Your task to perform on an android device: Go to battery settings Image 0: 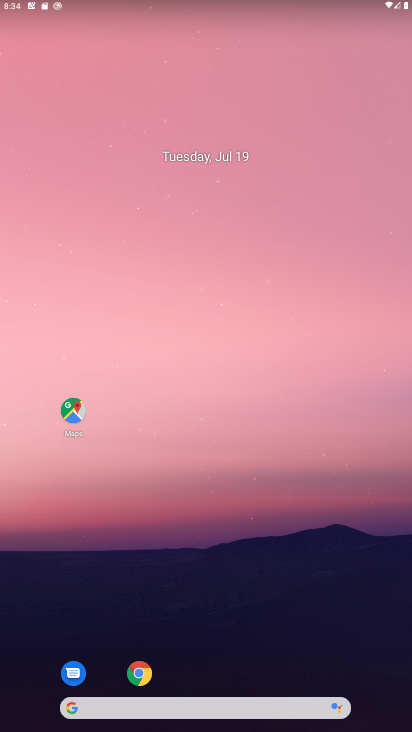
Step 0: drag from (362, 661) to (342, 257)
Your task to perform on an android device: Go to battery settings Image 1: 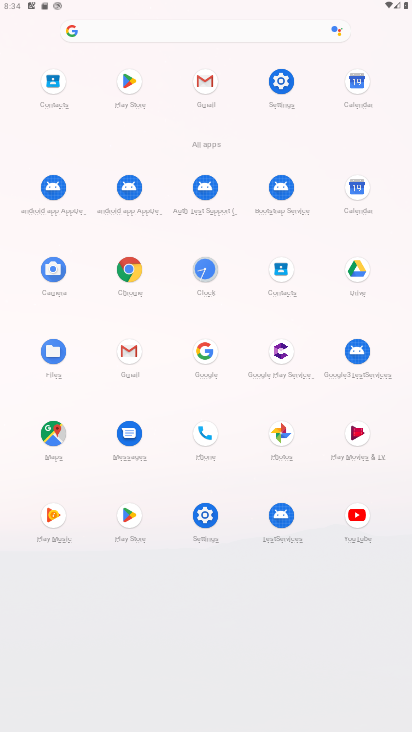
Step 1: click (204, 514)
Your task to perform on an android device: Go to battery settings Image 2: 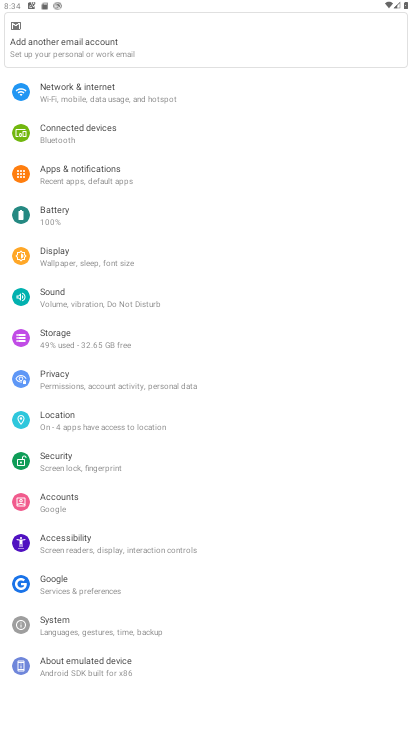
Step 2: click (43, 212)
Your task to perform on an android device: Go to battery settings Image 3: 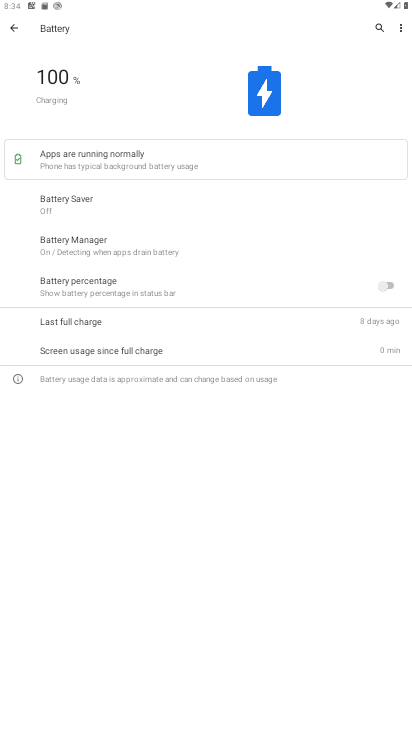
Step 3: task complete